Your task to perform on an android device: change keyboard looks Image 0: 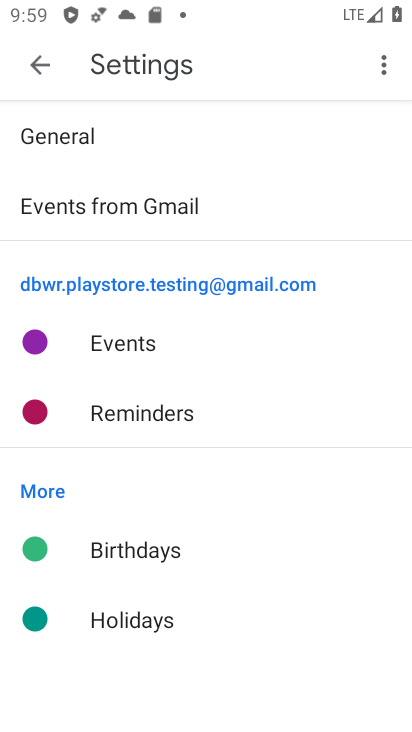
Step 0: press home button
Your task to perform on an android device: change keyboard looks Image 1: 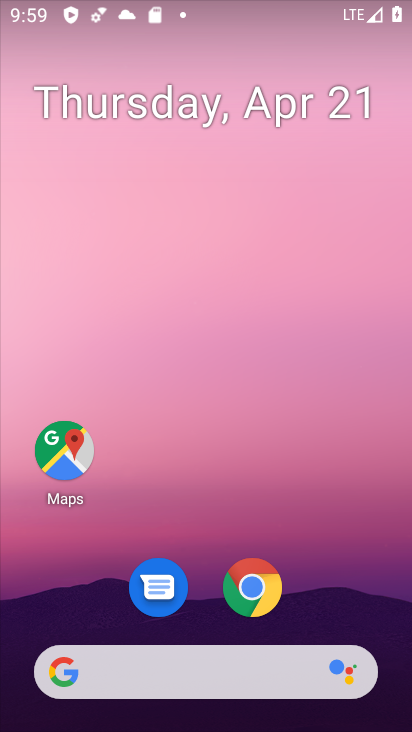
Step 1: drag from (316, 580) to (310, 107)
Your task to perform on an android device: change keyboard looks Image 2: 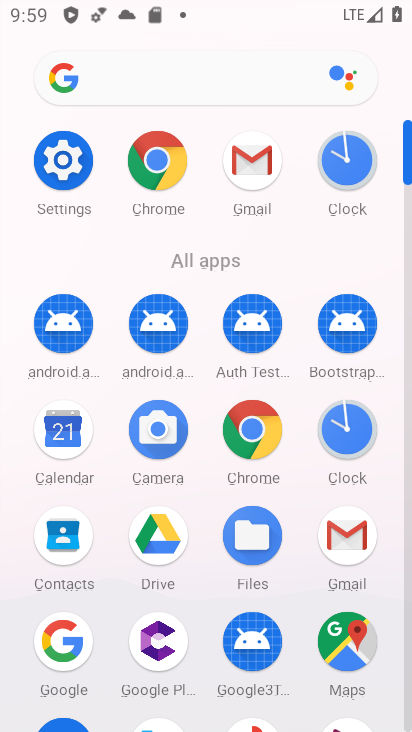
Step 2: click (85, 172)
Your task to perform on an android device: change keyboard looks Image 3: 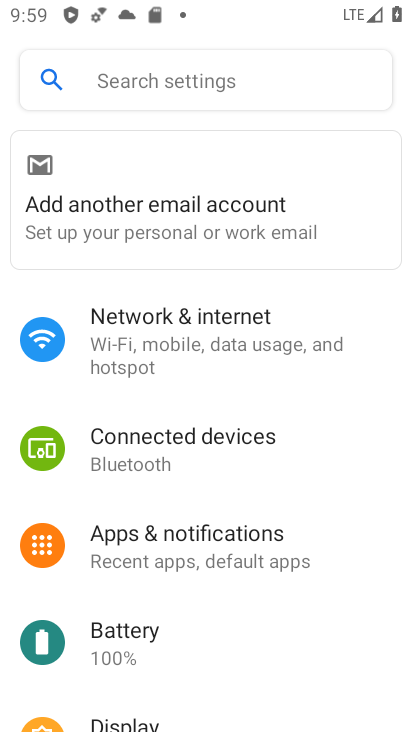
Step 3: drag from (355, 563) to (366, 388)
Your task to perform on an android device: change keyboard looks Image 4: 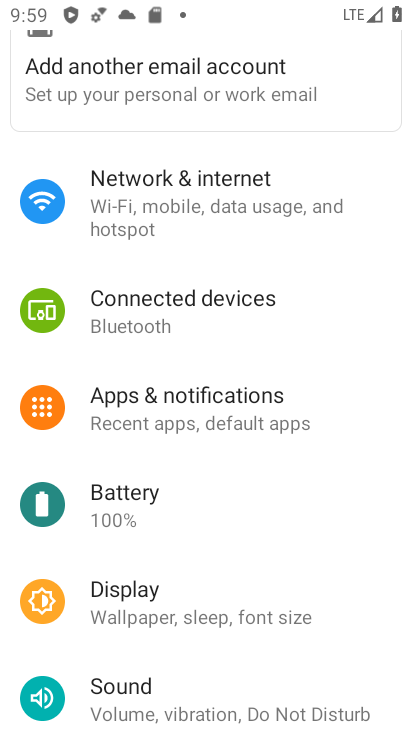
Step 4: drag from (354, 568) to (344, 405)
Your task to perform on an android device: change keyboard looks Image 5: 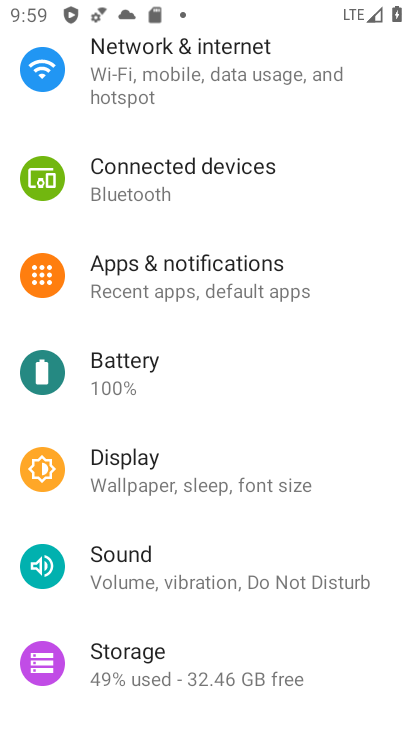
Step 5: drag from (352, 611) to (367, 385)
Your task to perform on an android device: change keyboard looks Image 6: 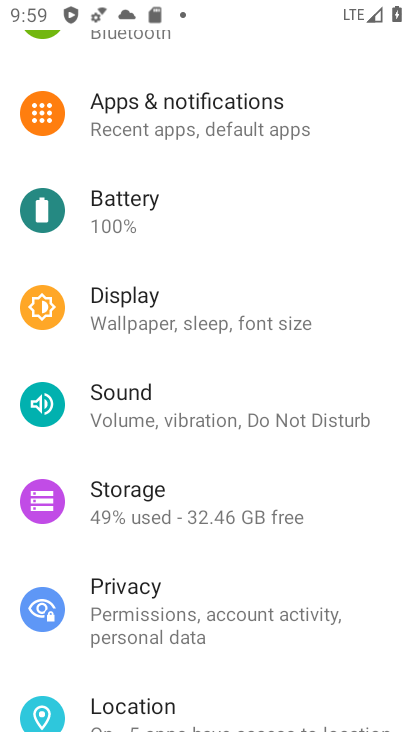
Step 6: drag from (370, 545) to (381, 376)
Your task to perform on an android device: change keyboard looks Image 7: 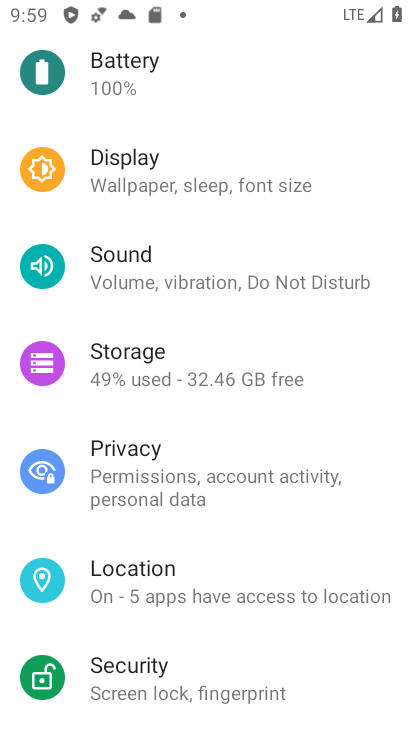
Step 7: drag from (359, 648) to (365, 446)
Your task to perform on an android device: change keyboard looks Image 8: 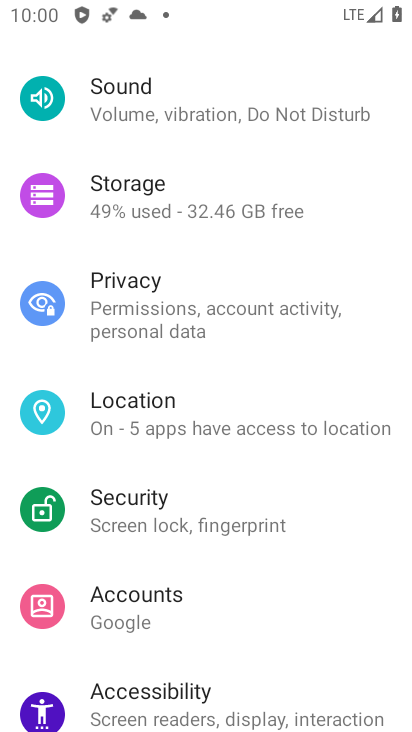
Step 8: drag from (360, 587) to (361, 441)
Your task to perform on an android device: change keyboard looks Image 9: 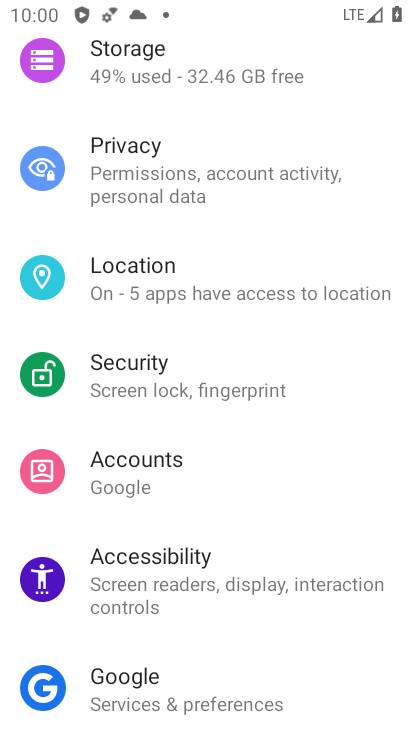
Step 9: drag from (337, 624) to (342, 446)
Your task to perform on an android device: change keyboard looks Image 10: 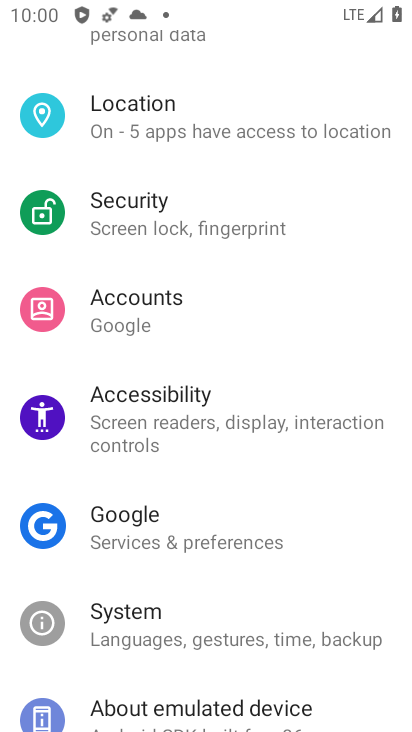
Step 10: click (255, 643)
Your task to perform on an android device: change keyboard looks Image 11: 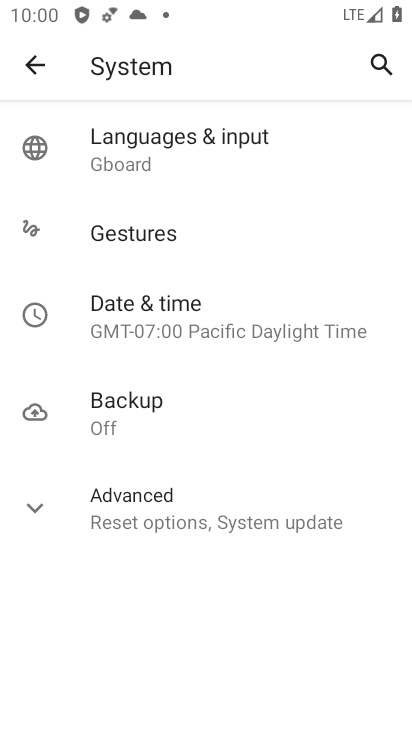
Step 11: click (204, 141)
Your task to perform on an android device: change keyboard looks Image 12: 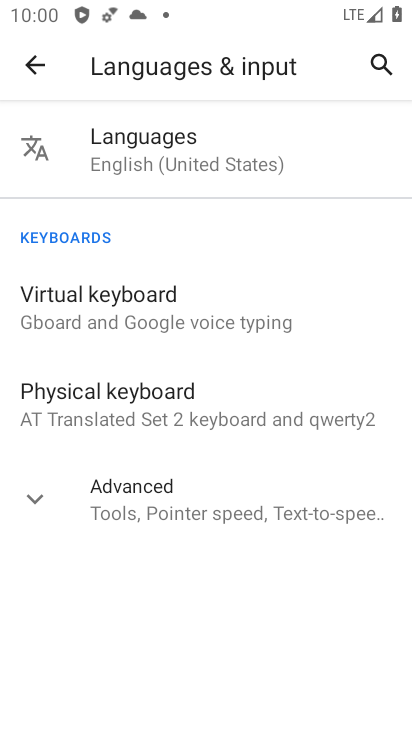
Step 12: click (203, 323)
Your task to perform on an android device: change keyboard looks Image 13: 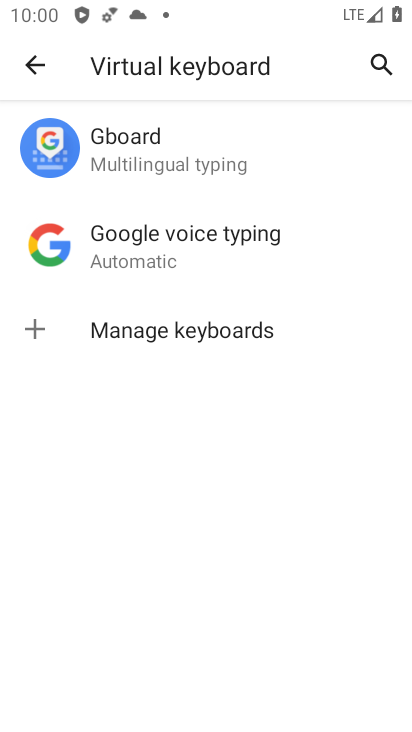
Step 13: click (148, 146)
Your task to perform on an android device: change keyboard looks Image 14: 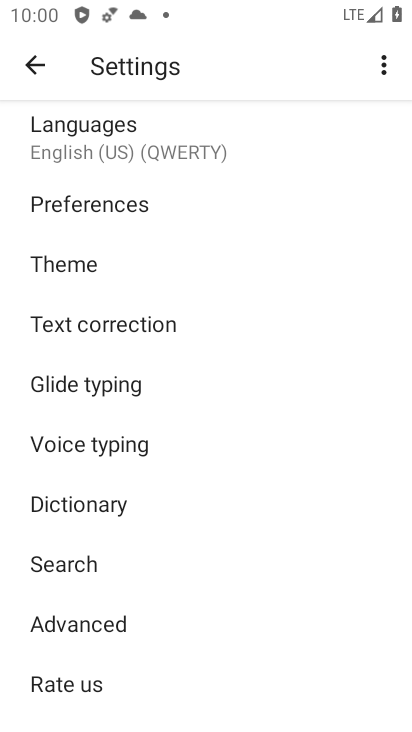
Step 14: click (85, 258)
Your task to perform on an android device: change keyboard looks Image 15: 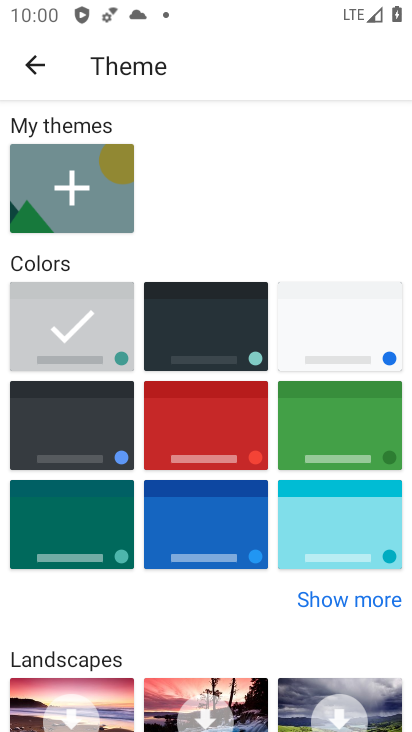
Step 15: click (234, 421)
Your task to perform on an android device: change keyboard looks Image 16: 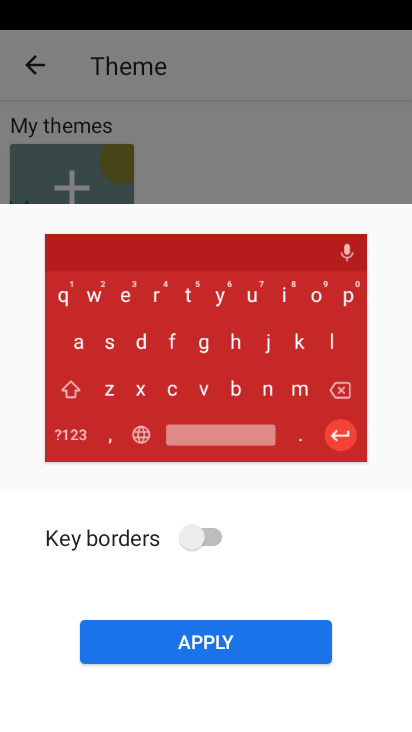
Step 16: click (204, 646)
Your task to perform on an android device: change keyboard looks Image 17: 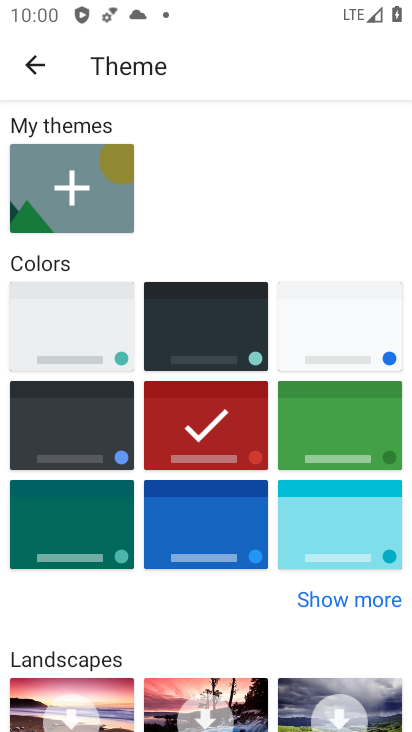
Step 17: task complete